Your task to perform on an android device: open a new tab in the chrome app Image 0: 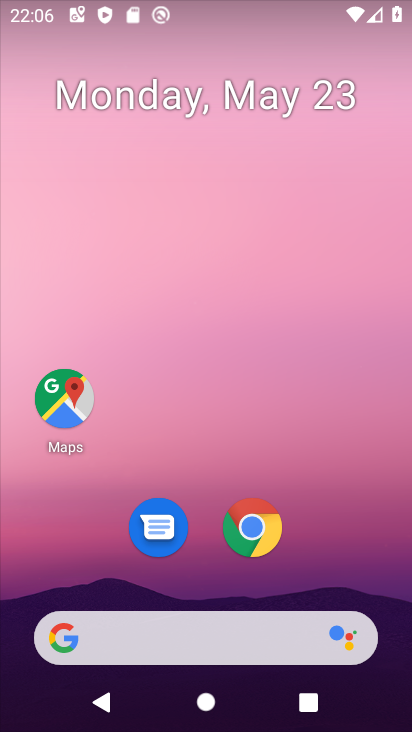
Step 0: click (239, 552)
Your task to perform on an android device: open a new tab in the chrome app Image 1: 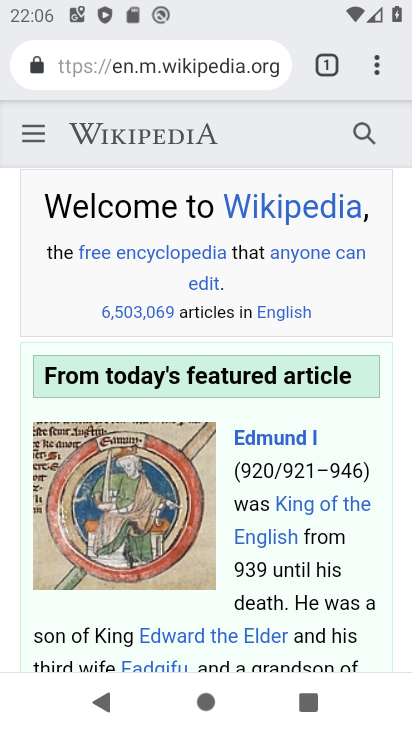
Step 1: task complete